Your task to perform on an android device: turn pop-ups off in chrome Image 0: 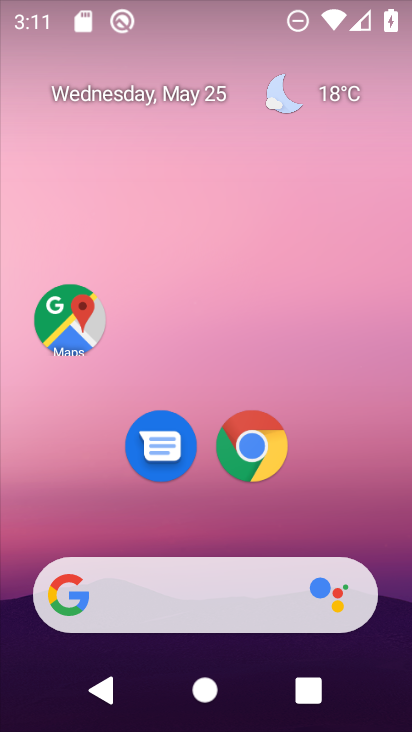
Step 0: click (240, 462)
Your task to perform on an android device: turn pop-ups off in chrome Image 1: 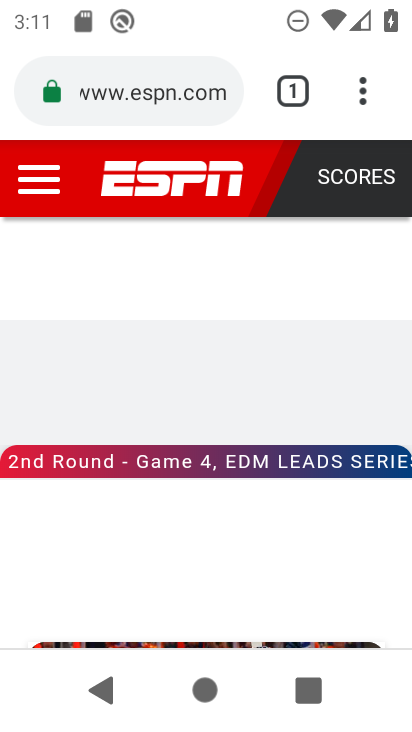
Step 1: drag from (362, 82) to (82, 459)
Your task to perform on an android device: turn pop-ups off in chrome Image 2: 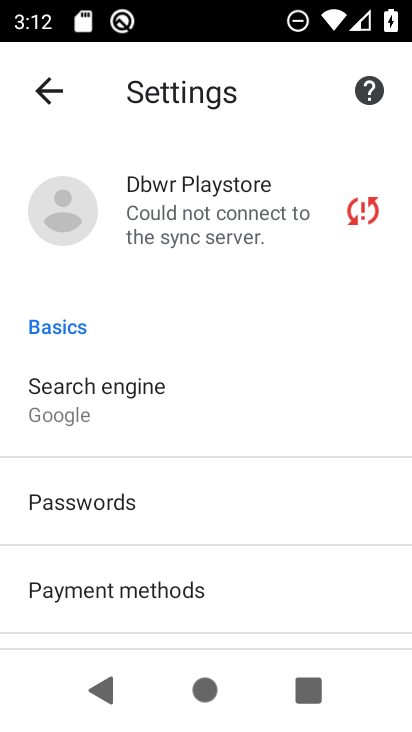
Step 2: drag from (225, 539) to (229, 95)
Your task to perform on an android device: turn pop-ups off in chrome Image 3: 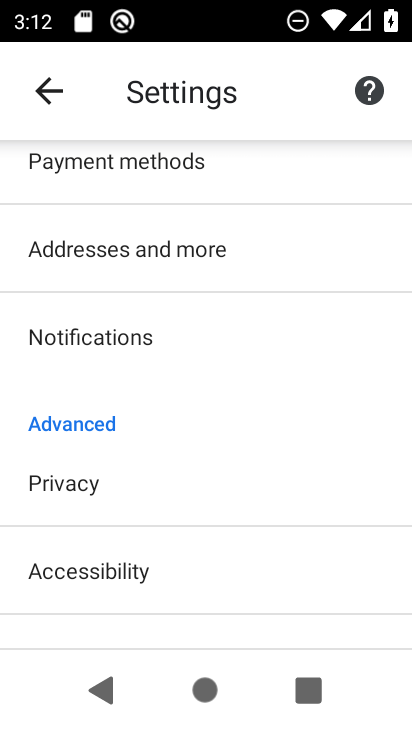
Step 3: drag from (171, 512) to (181, 181)
Your task to perform on an android device: turn pop-ups off in chrome Image 4: 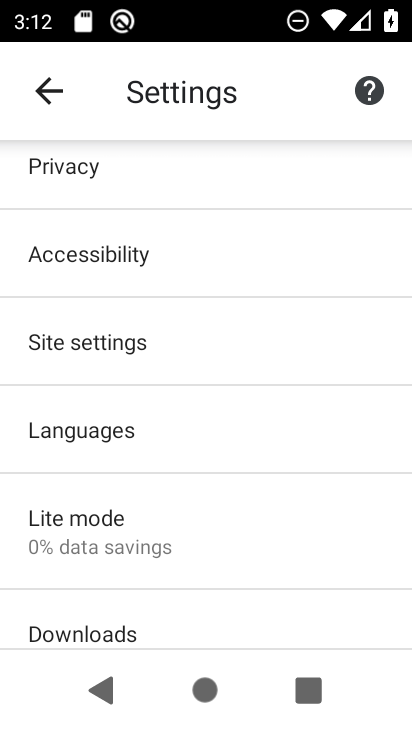
Step 4: click (152, 347)
Your task to perform on an android device: turn pop-ups off in chrome Image 5: 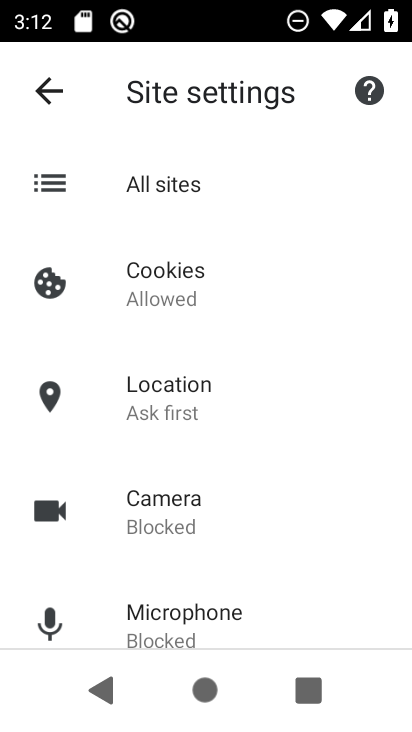
Step 5: drag from (228, 519) to (254, 66)
Your task to perform on an android device: turn pop-ups off in chrome Image 6: 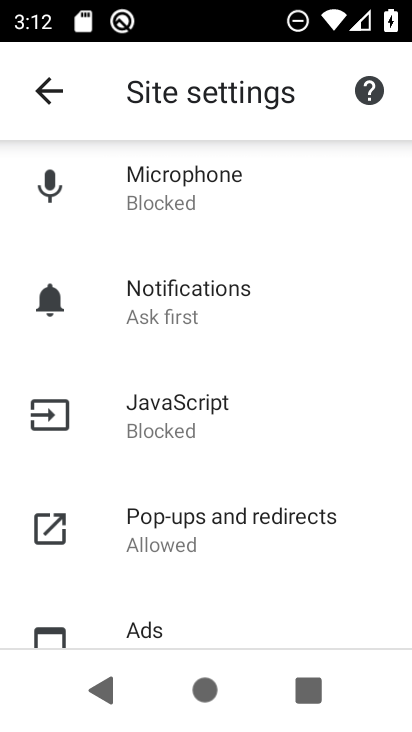
Step 6: click (233, 532)
Your task to perform on an android device: turn pop-ups off in chrome Image 7: 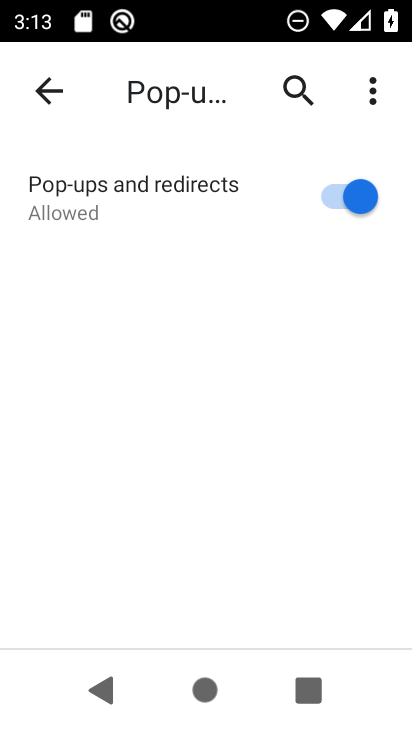
Step 7: click (340, 207)
Your task to perform on an android device: turn pop-ups off in chrome Image 8: 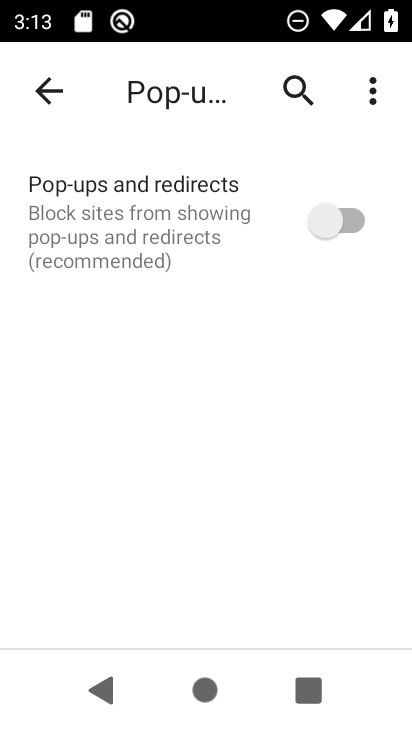
Step 8: task complete